Your task to perform on an android device: star an email in the gmail app Image 0: 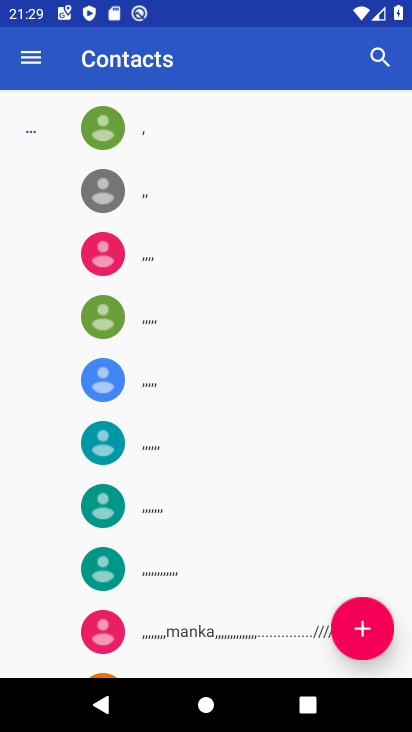
Step 0: press home button
Your task to perform on an android device: star an email in the gmail app Image 1: 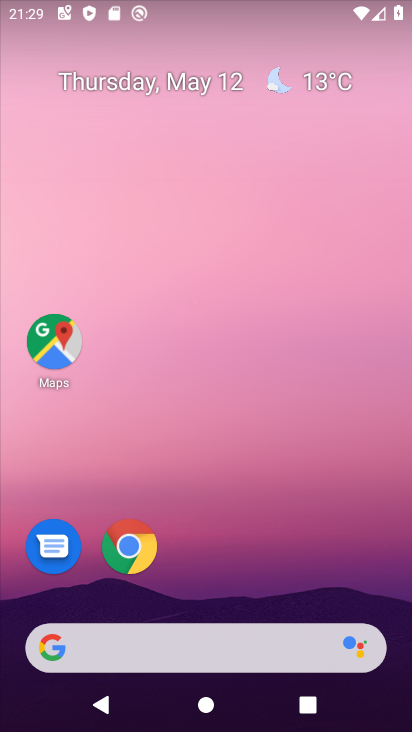
Step 1: drag from (216, 561) to (171, 88)
Your task to perform on an android device: star an email in the gmail app Image 2: 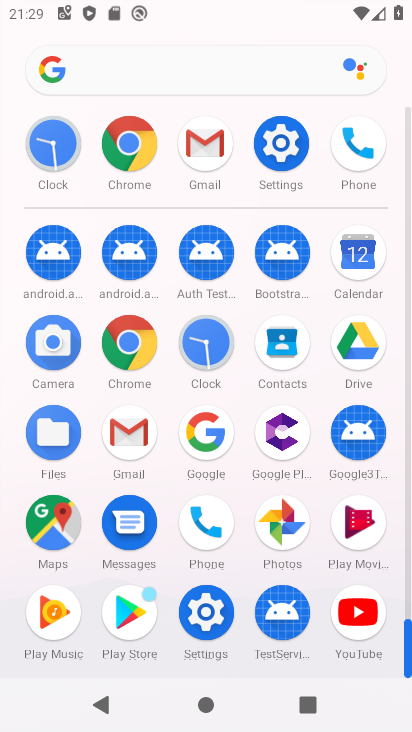
Step 2: click (205, 145)
Your task to perform on an android device: star an email in the gmail app Image 3: 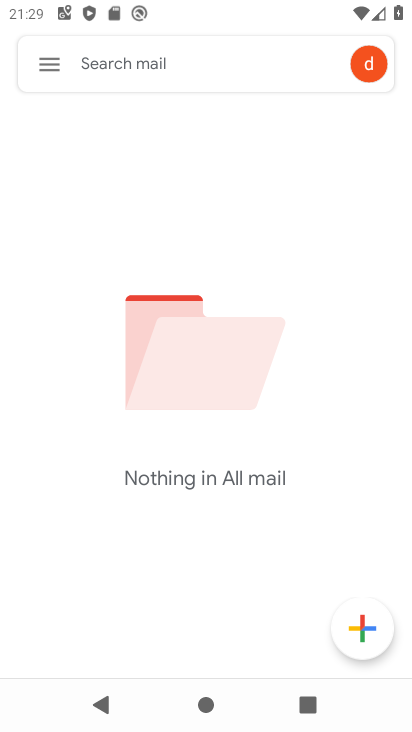
Step 3: click (56, 62)
Your task to perform on an android device: star an email in the gmail app Image 4: 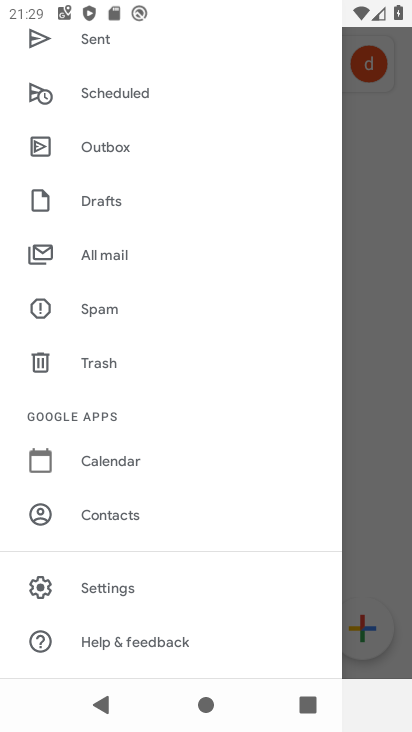
Step 4: drag from (239, 201) to (248, 615)
Your task to perform on an android device: star an email in the gmail app Image 5: 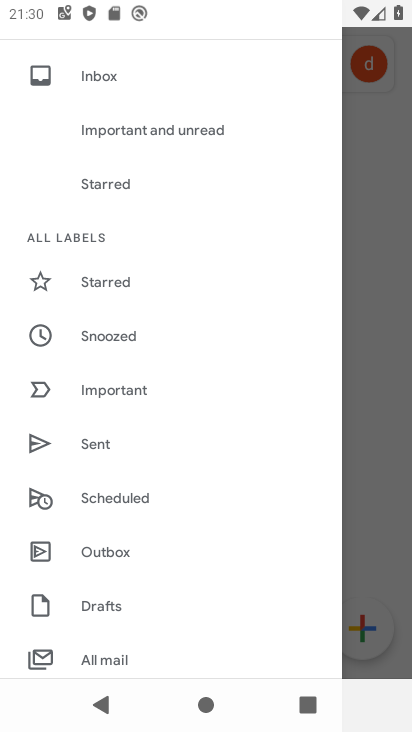
Step 5: click (92, 71)
Your task to perform on an android device: star an email in the gmail app Image 6: 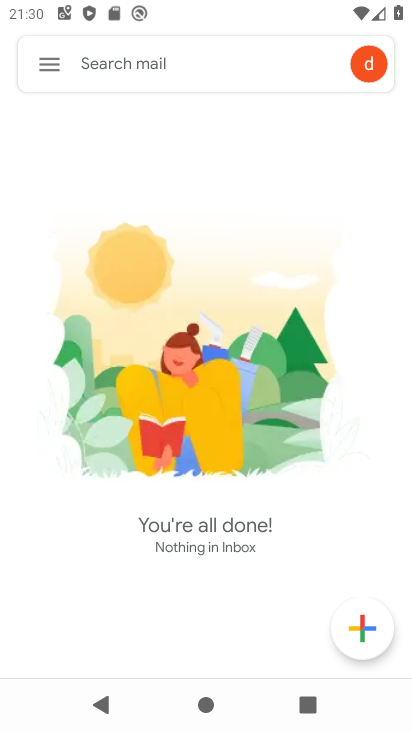
Step 6: task complete